Your task to perform on an android device: Search for Italian restaurants on Maps Image 0: 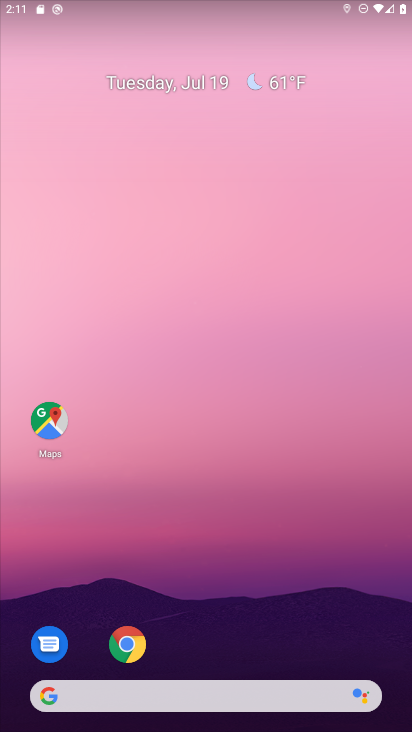
Step 0: drag from (221, 667) to (135, 39)
Your task to perform on an android device: Search for Italian restaurants on Maps Image 1: 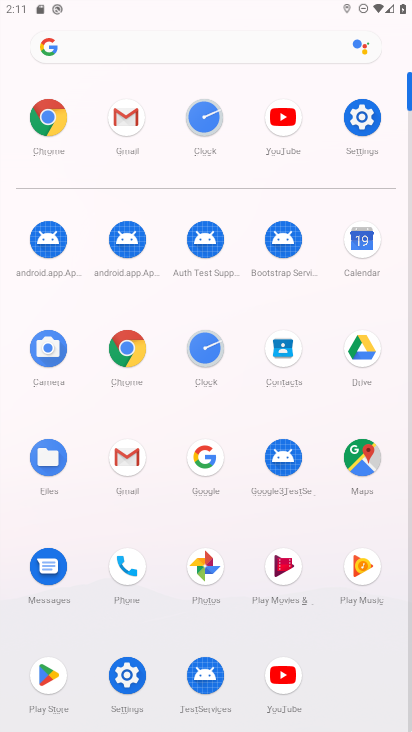
Step 1: click (345, 448)
Your task to perform on an android device: Search for Italian restaurants on Maps Image 2: 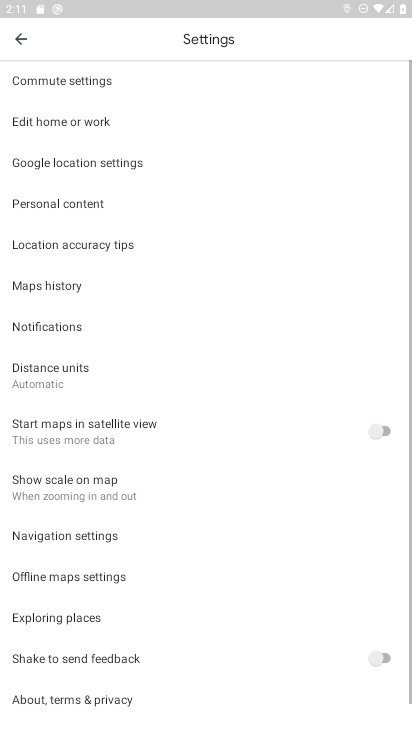
Step 2: click (16, 35)
Your task to perform on an android device: Search for Italian restaurants on Maps Image 3: 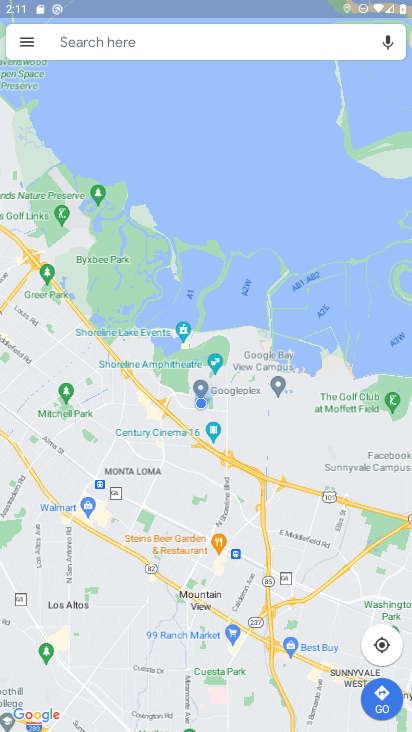
Step 3: click (81, 51)
Your task to perform on an android device: Search for Italian restaurants on Maps Image 4: 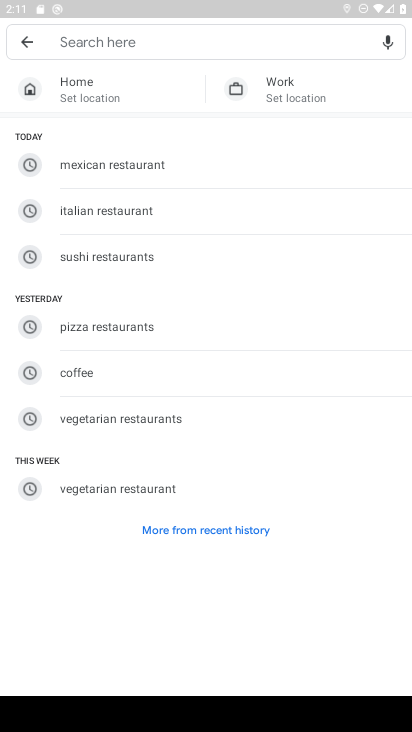
Step 4: click (105, 217)
Your task to perform on an android device: Search for Italian restaurants on Maps Image 5: 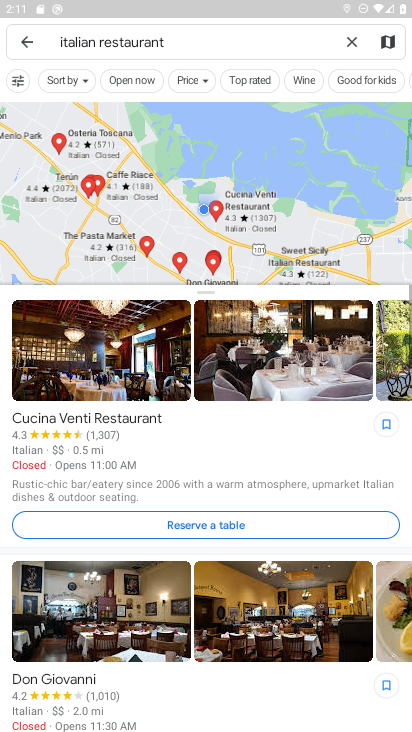
Step 5: task complete